Your task to perform on an android device: Go to Reddit.com Image 0: 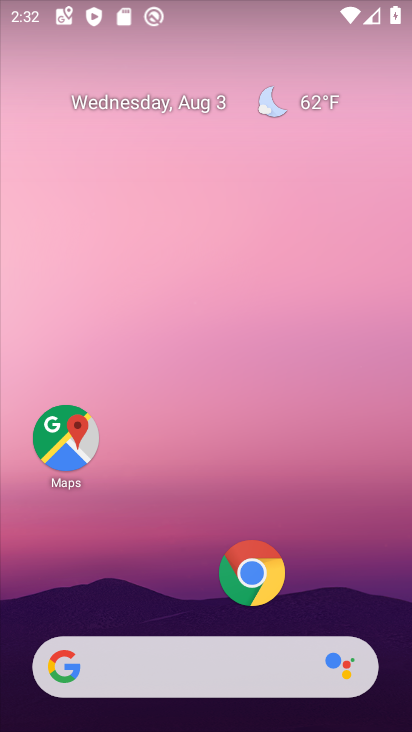
Step 0: click (252, 564)
Your task to perform on an android device: Go to Reddit.com Image 1: 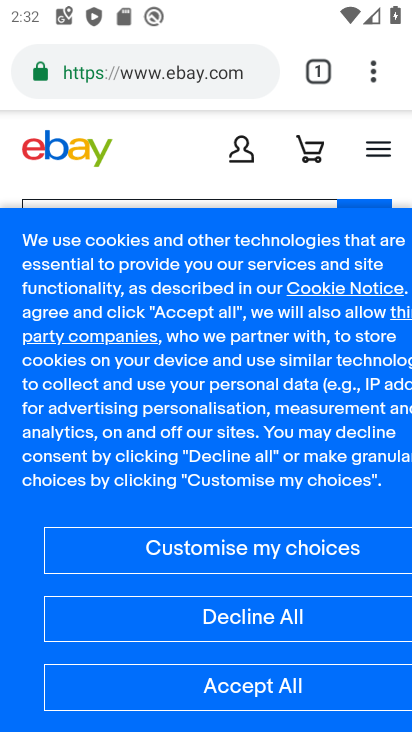
Step 1: click (154, 66)
Your task to perform on an android device: Go to Reddit.com Image 2: 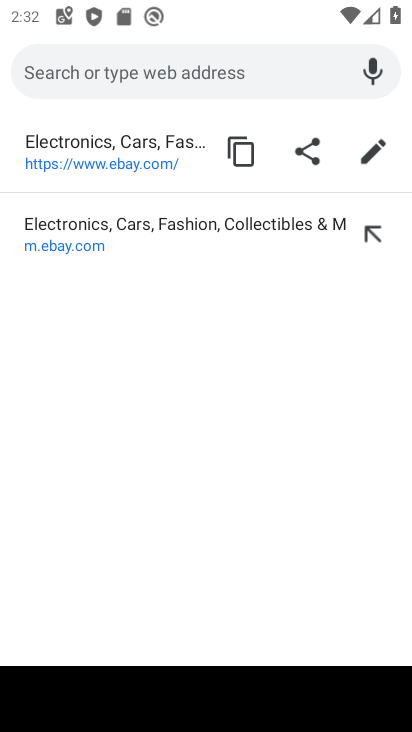
Step 2: type "Reddit.com"
Your task to perform on an android device: Go to Reddit.com Image 3: 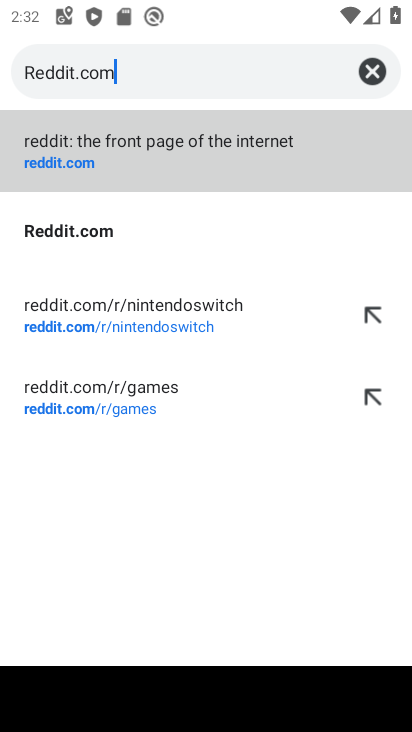
Step 3: click (110, 144)
Your task to perform on an android device: Go to Reddit.com Image 4: 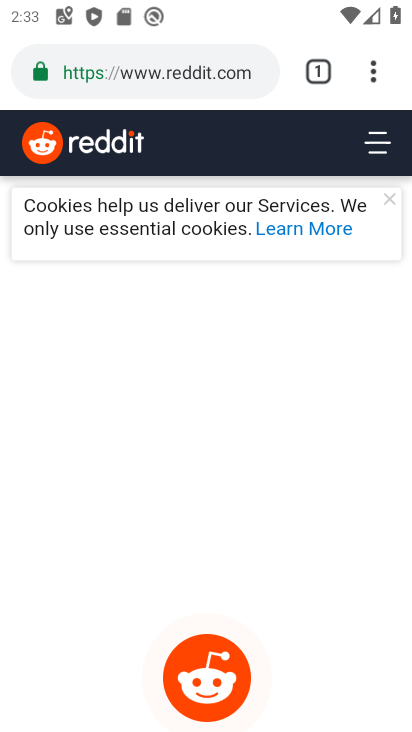
Step 4: task complete